Your task to perform on an android device: search for starred emails in the gmail app Image 0: 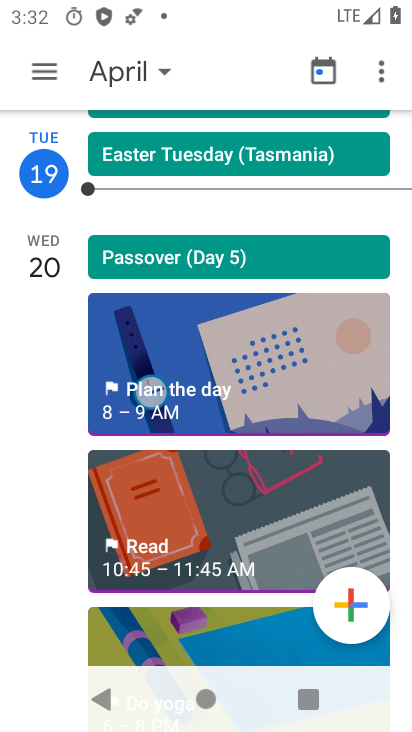
Step 0: press home button
Your task to perform on an android device: search for starred emails in the gmail app Image 1: 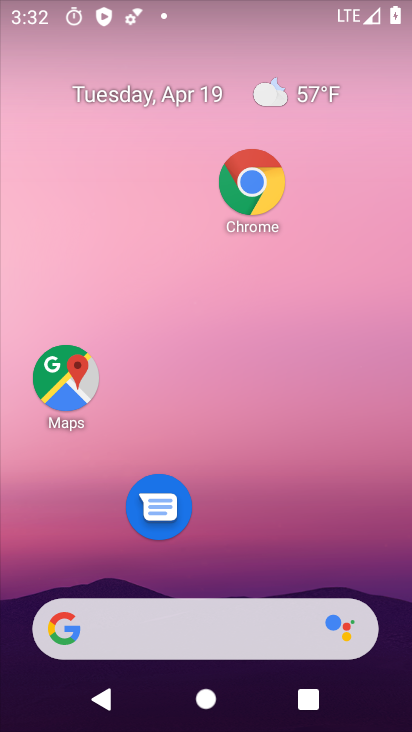
Step 1: drag from (243, 502) to (241, 104)
Your task to perform on an android device: search for starred emails in the gmail app Image 2: 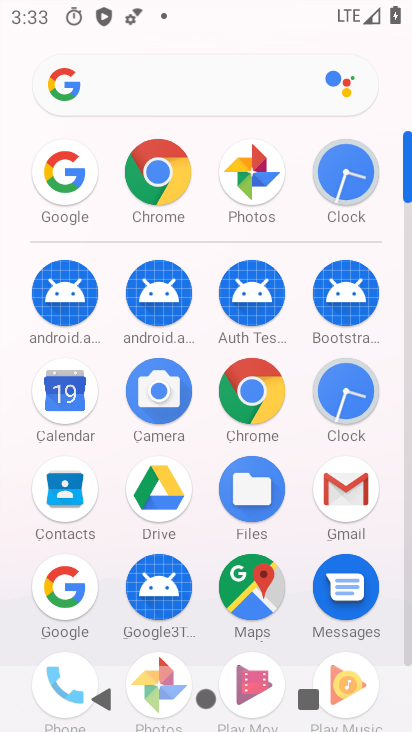
Step 2: click (343, 519)
Your task to perform on an android device: search for starred emails in the gmail app Image 3: 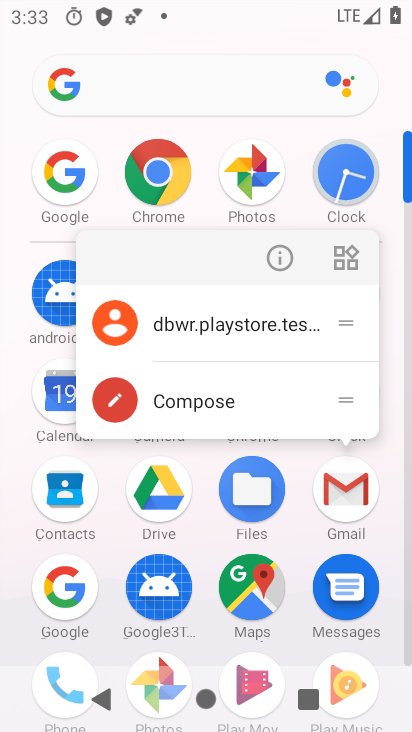
Step 3: click (343, 510)
Your task to perform on an android device: search for starred emails in the gmail app Image 4: 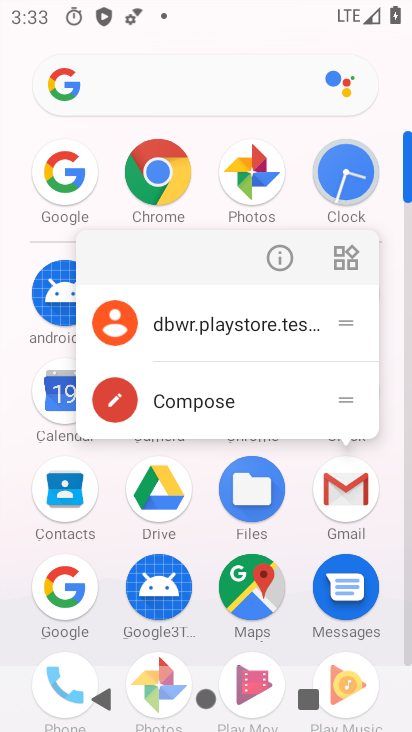
Step 4: click (344, 509)
Your task to perform on an android device: search for starred emails in the gmail app Image 5: 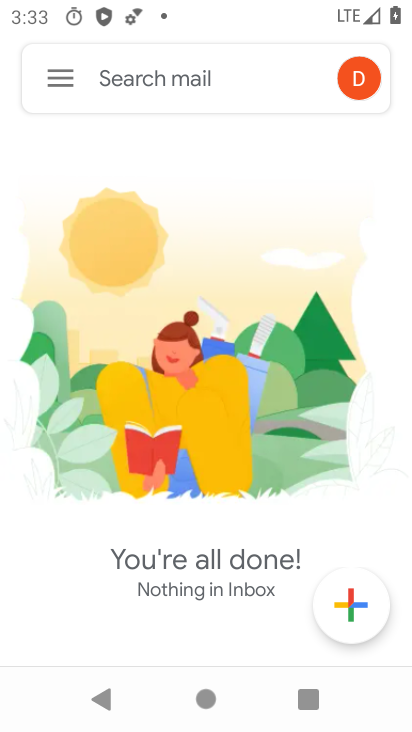
Step 5: click (68, 77)
Your task to perform on an android device: search for starred emails in the gmail app Image 6: 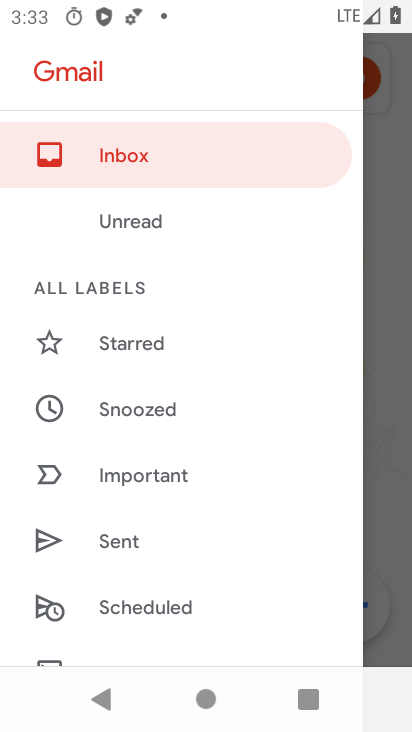
Step 6: click (167, 347)
Your task to perform on an android device: search for starred emails in the gmail app Image 7: 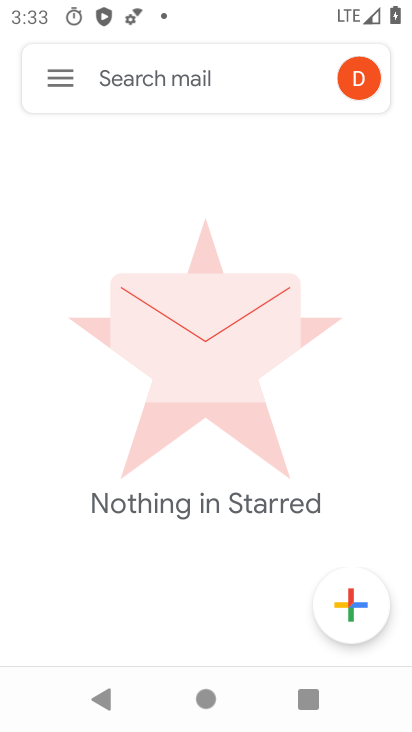
Step 7: task complete